Your task to perform on an android device: Search for "apple airpods pro" on amazon, select the first entry, add it to the cart, then select checkout. Image 0: 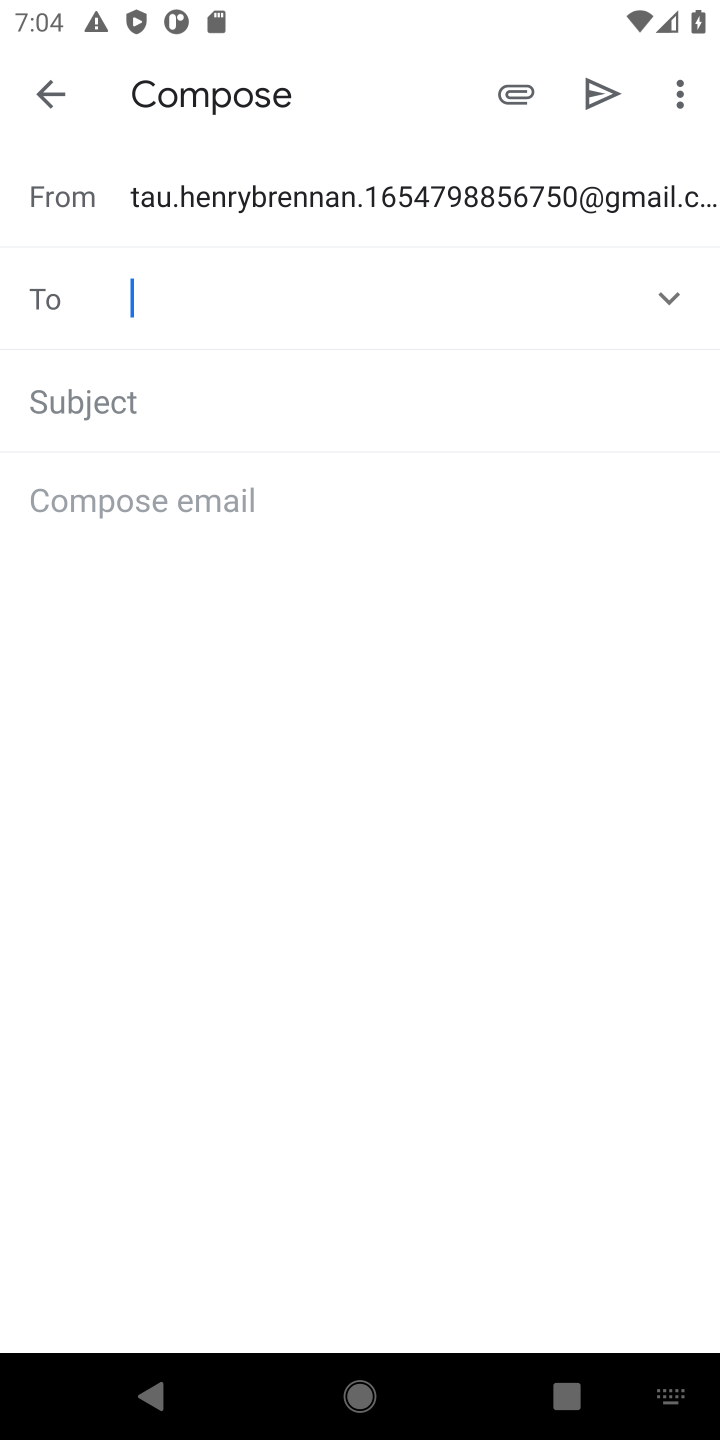
Step 0: press home button
Your task to perform on an android device: Search for "apple airpods pro" on amazon, select the first entry, add it to the cart, then select checkout. Image 1: 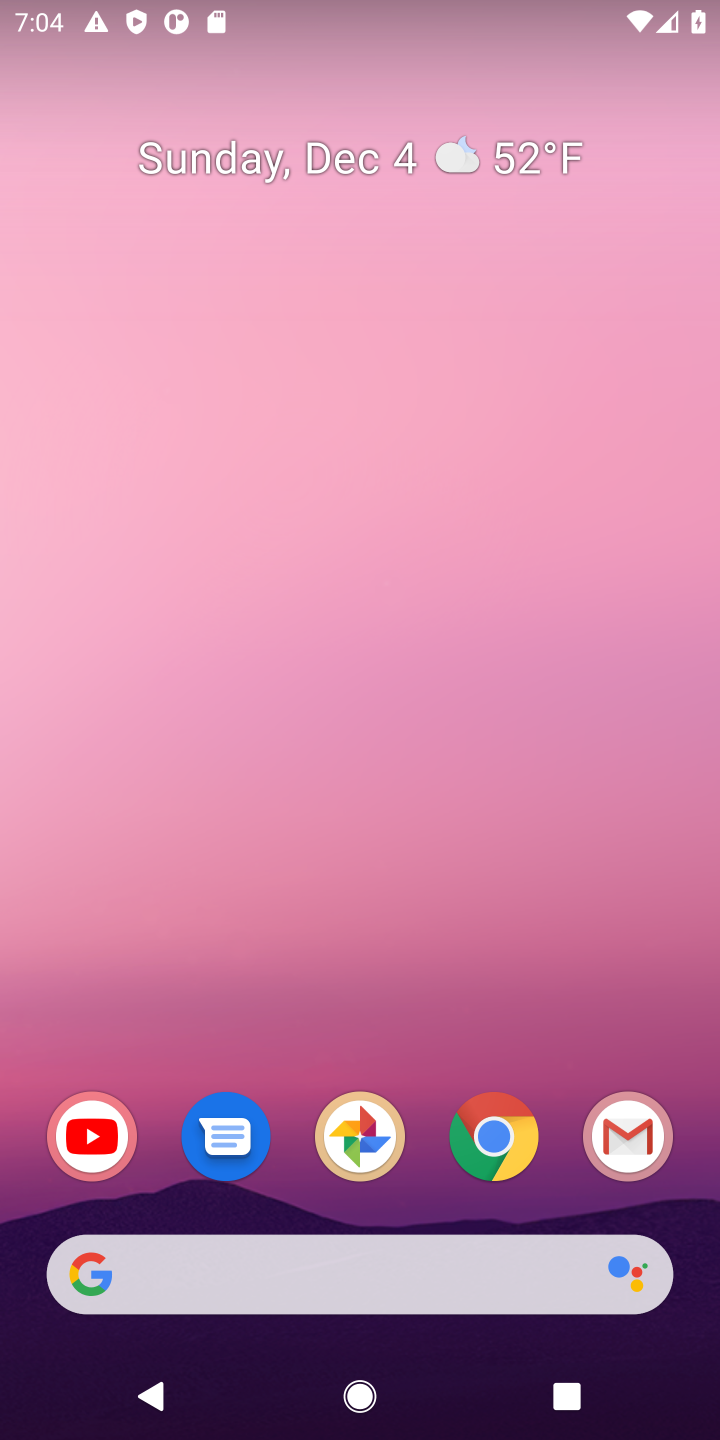
Step 1: click (498, 1141)
Your task to perform on an android device: Search for "apple airpods pro" on amazon, select the first entry, add it to the cart, then select checkout. Image 2: 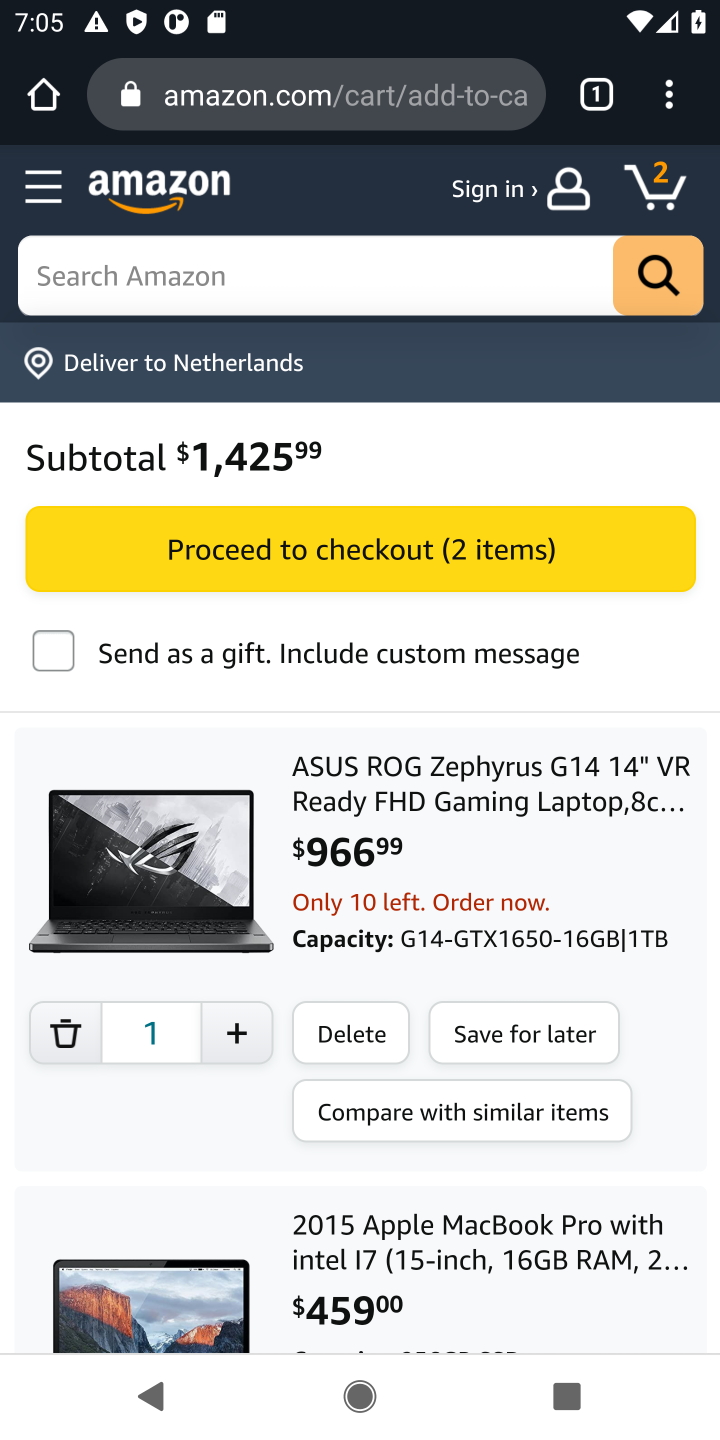
Step 2: click (84, 274)
Your task to perform on an android device: Search for "apple airpods pro" on amazon, select the first entry, add it to the cart, then select checkout. Image 3: 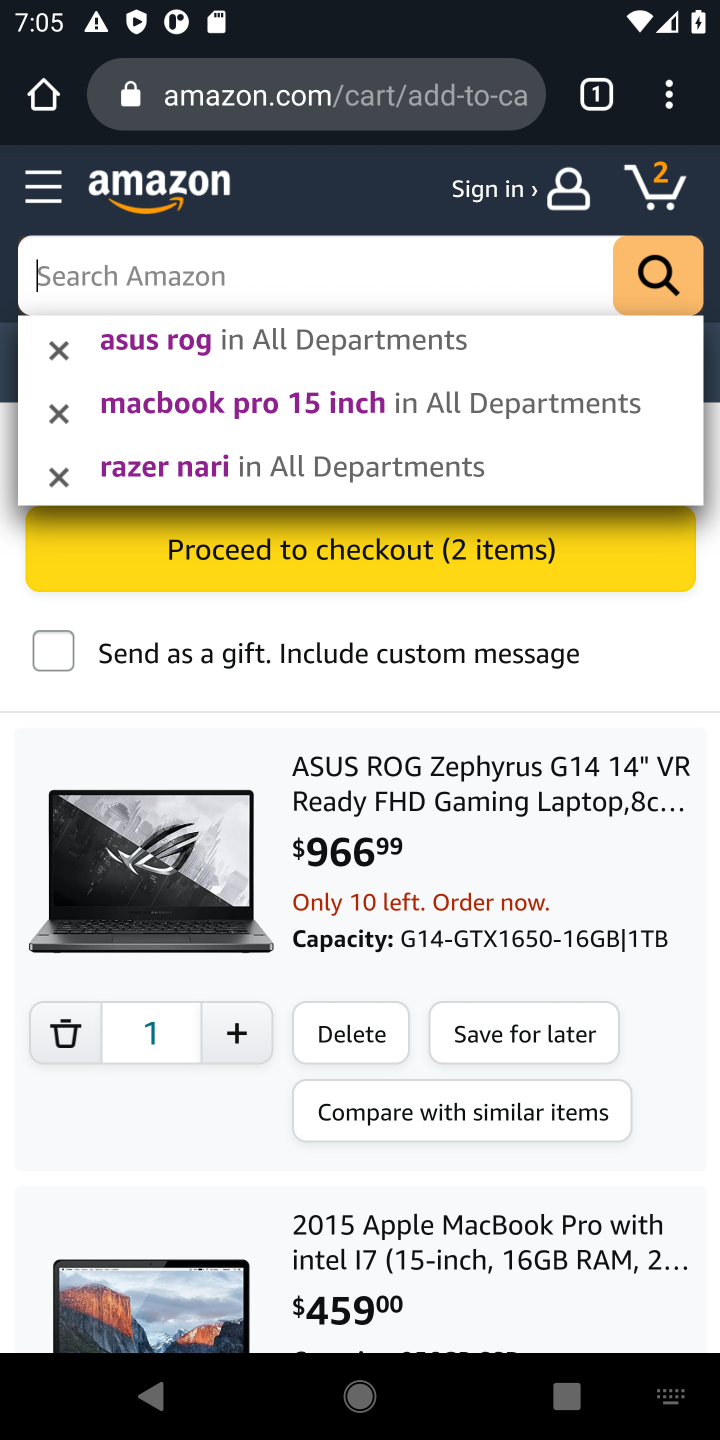
Step 3: type "apple airpods pro"
Your task to perform on an android device: Search for "apple airpods pro" on amazon, select the first entry, add it to the cart, then select checkout. Image 4: 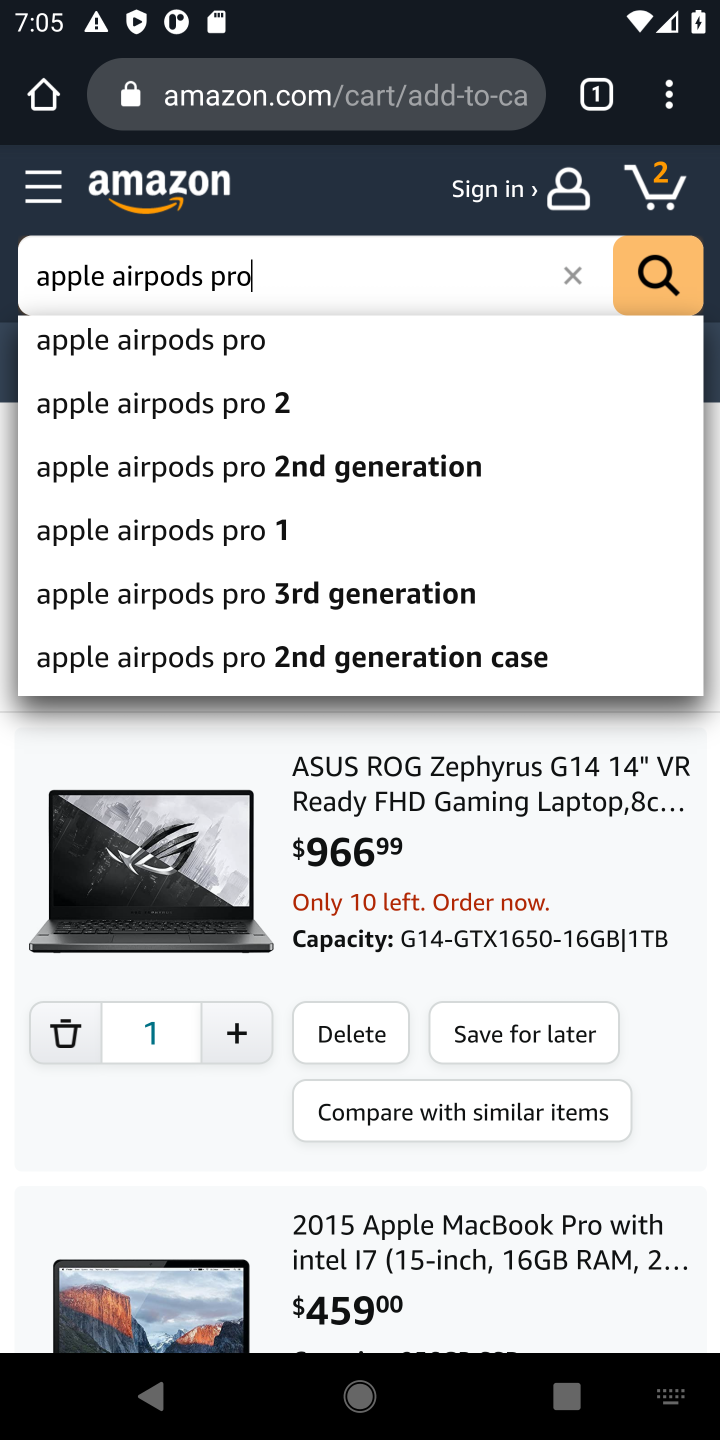
Step 4: click (97, 333)
Your task to perform on an android device: Search for "apple airpods pro" on amazon, select the first entry, add it to the cart, then select checkout. Image 5: 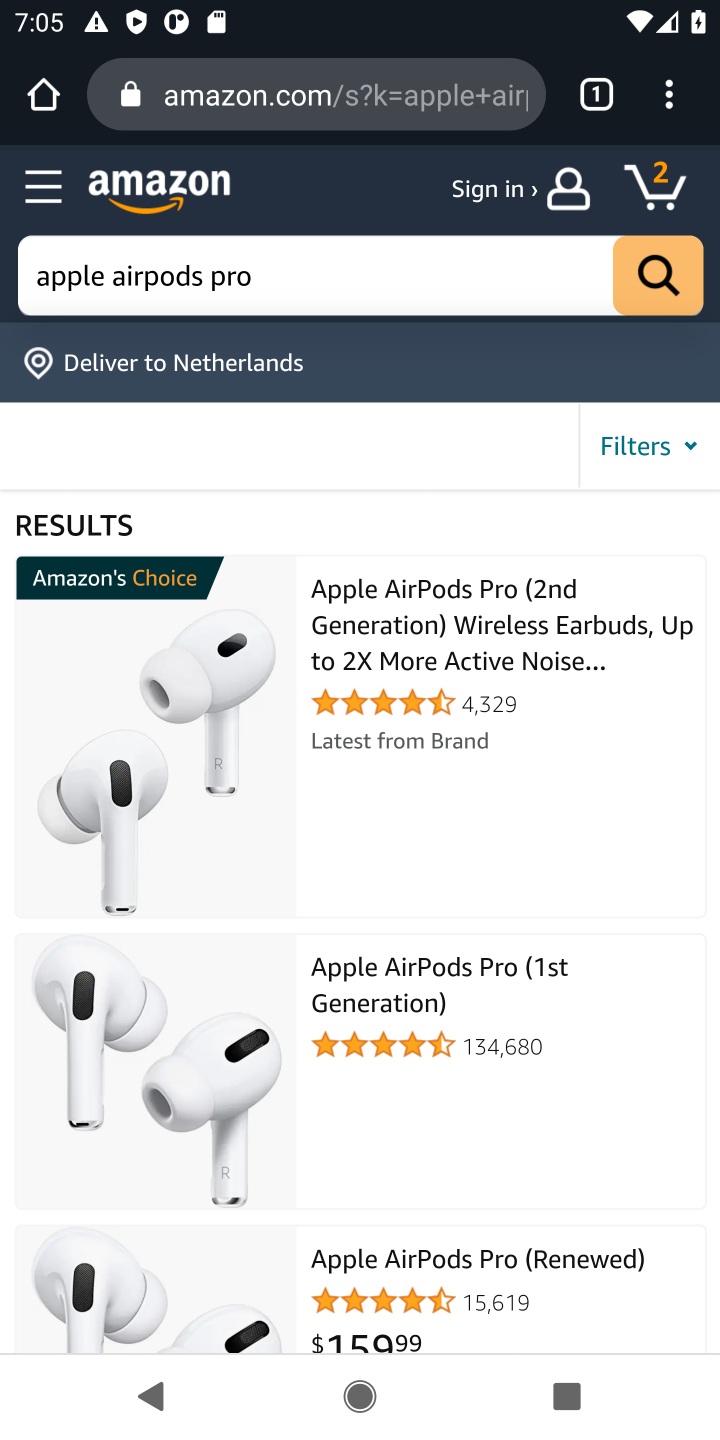
Step 5: click (373, 645)
Your task to perform on an android device: Search for "apple airpods pro" on amazon, select the first entry, add it to the cart, then select checkout. Image 6: 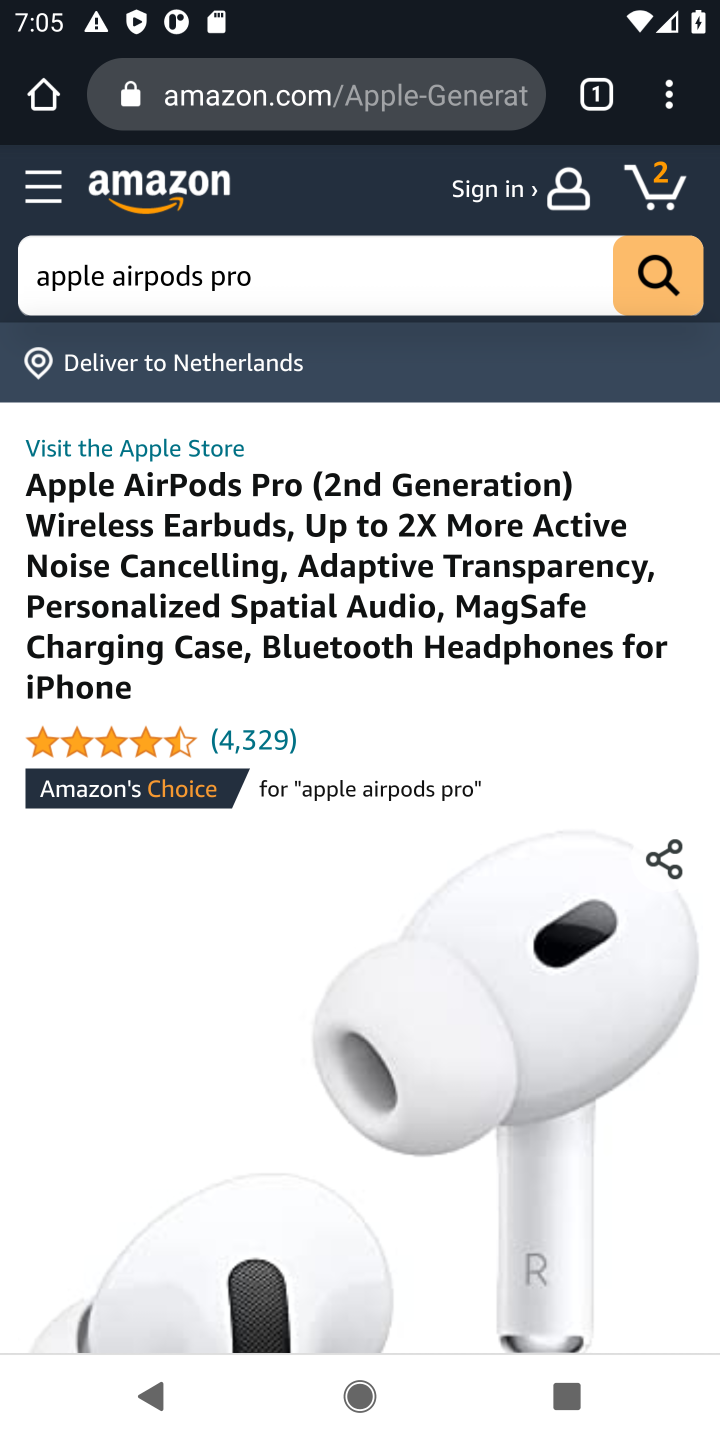
Step 6: task complete